Your task to perform on an android device: Go to Maps Image 0: 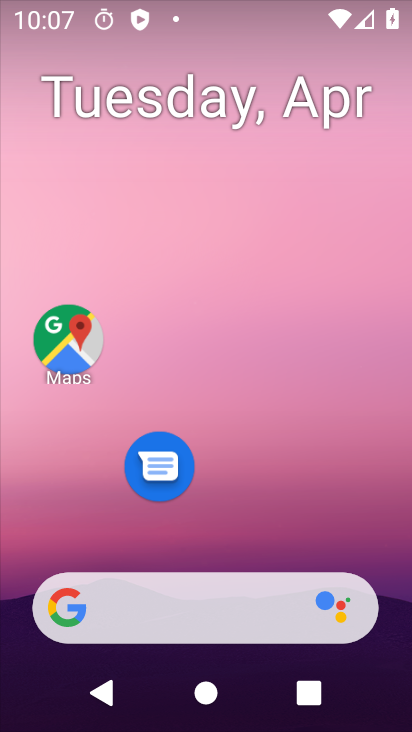
Step 0: drag from (291, 546) to (333, 230)
Your task to perform on an android device: Go to Maps Image 1: 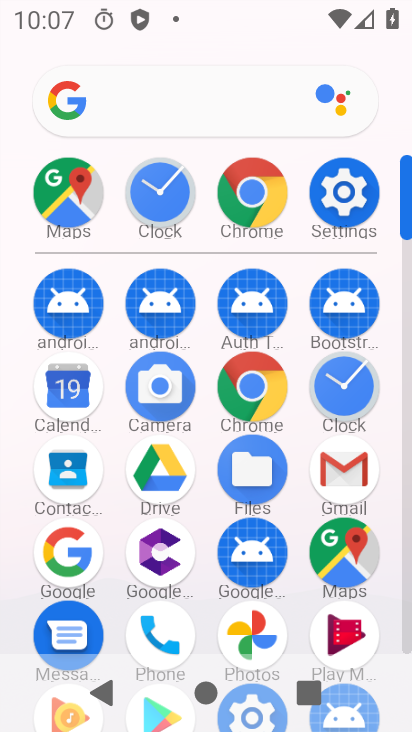
Step 1: click (84, 224)
Your task to perform on an android device: Go to Maps Image 2: 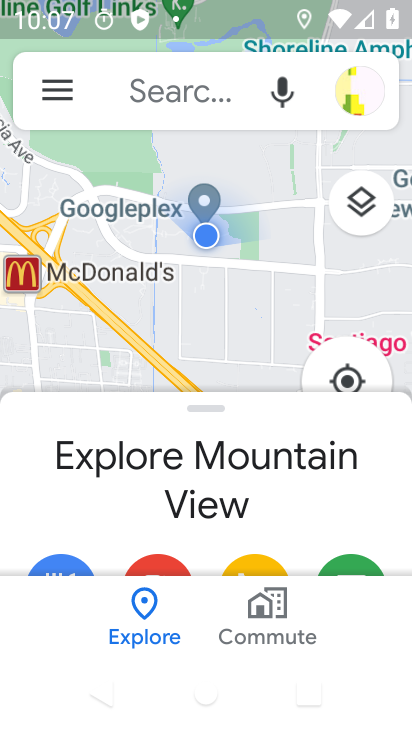
Step 2: task complete